Your task to perform on an android device: Open settings on Google Maps Image 0: 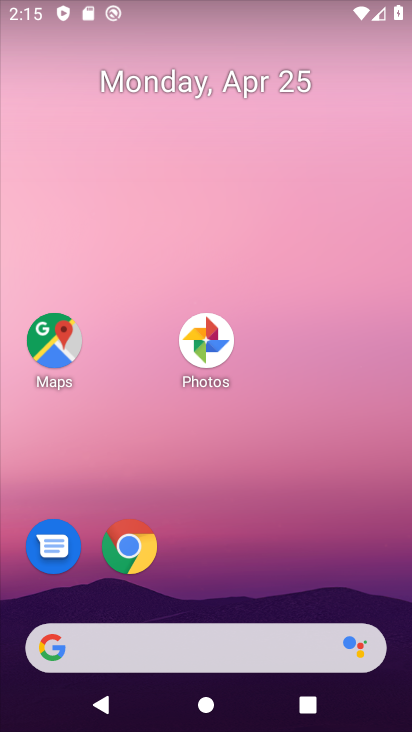
Step 0: drag from (279, 568) to (335, 264)
Your task to perform on an android device: Open settings on Google Maps Image 1: 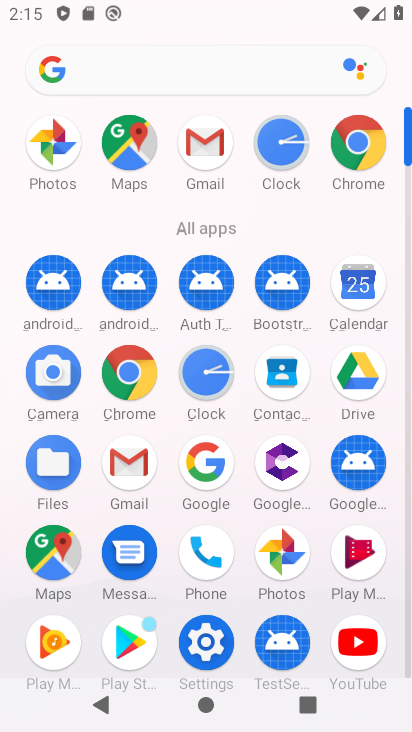
Step 1: click (53, 542)
Your task to perform on an android device: Open settings on Google Maps Image 2: 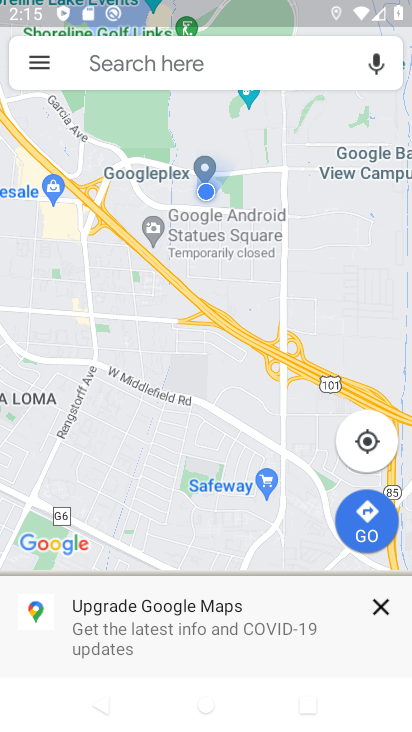
Step 2: click (45, 58)
Your task to perform on an android device: Open settings on Google Maps Image 3: 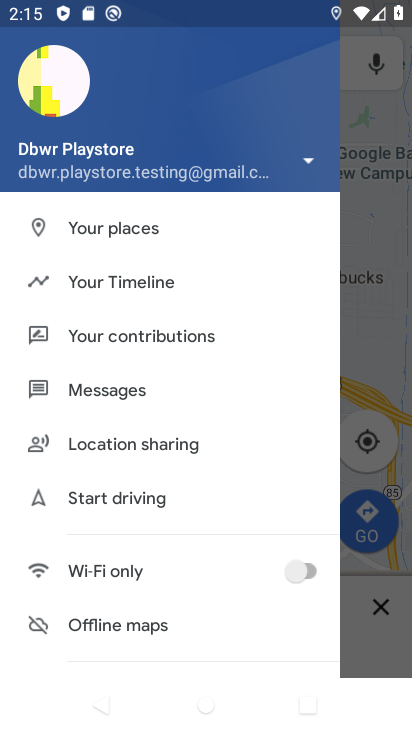
Step 3: drag from (201, 486) to (255, 222)
Your task to perform on an android device: Open settings on Google Maps Image 4: 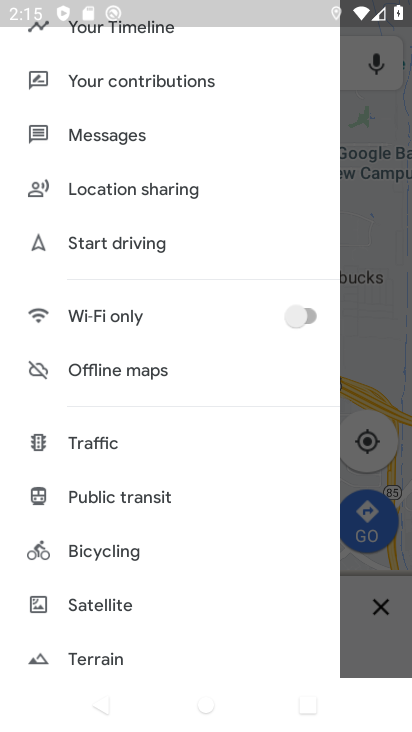
Step 4: drag from (134, 604) to (209, 171)
Your task to perform on an android device: Open settings on Google Maps Image 5: 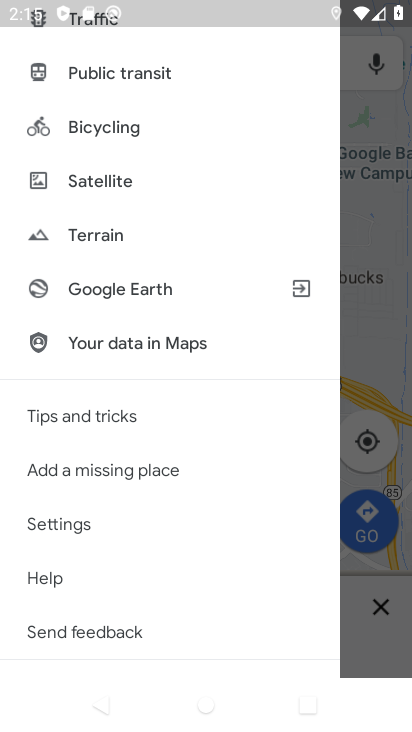
Step 5: click (100, 521)
Your task to perform on an android device: Open settings on Google Maps Image 6: 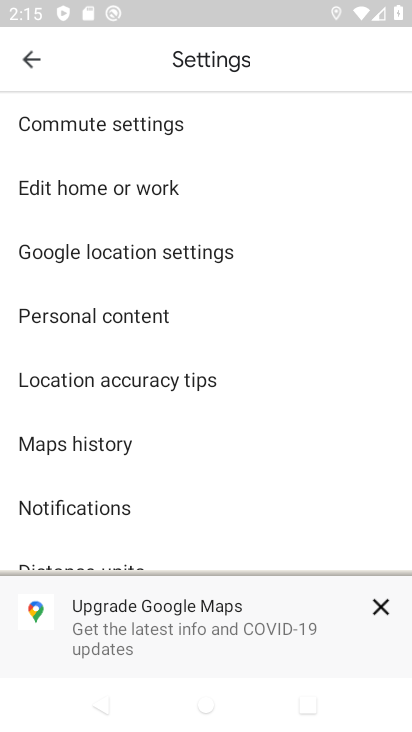
Step 6: click (374, 604)
Your task to perform on an android device: Open settings on Google Maps Image 7: 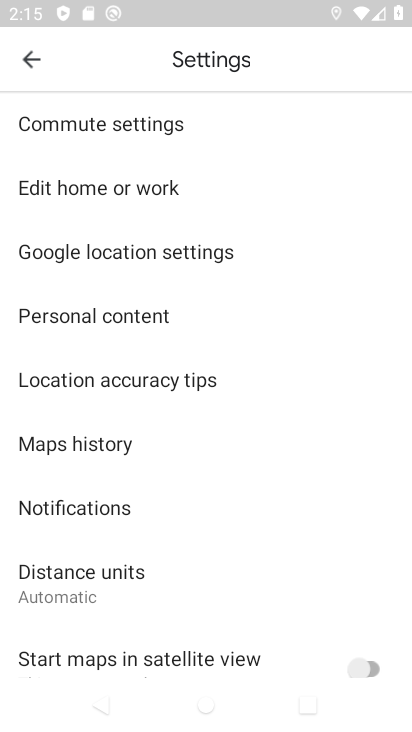
Step 7: task complete